Your task to perform on an android device: Clear the cart on newegg. Add usb-b to the cart on newegg, then select checkout. Image 0: 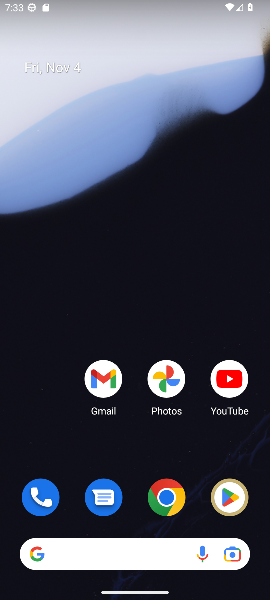
Step 0: click (169, 499)
Your task to perform on an android device: Clear the cart on newegg. Add usb-b to the cart on newegg, then select checkout. Image 1: 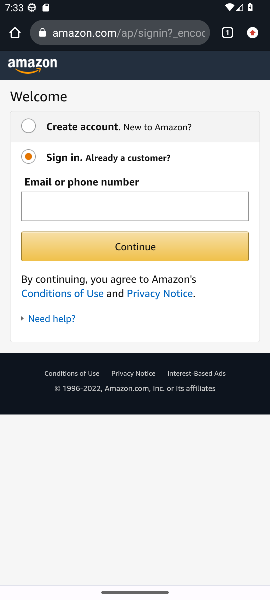
Step 1: click (129, 34)
Your task to perform on an android device: Clear the cart on newegg. Add usb-b to the cart on newegg, then select checkout. Image 2: 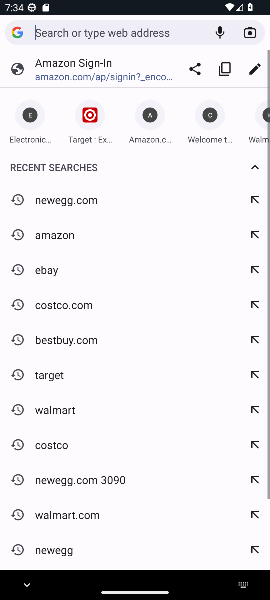
Step 2: click (84, 200)
Your task to perform on an android device: Clear the cart on newegg. Add usb-b to the cart on newegg, then select checkout. Image 3: 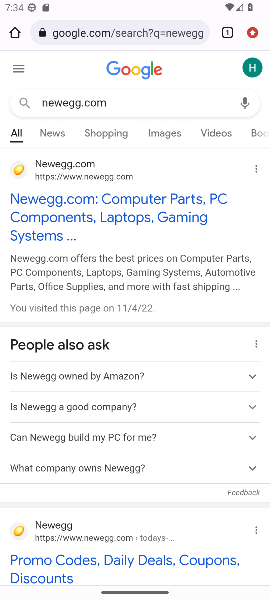
Step 3: click (55, 217)
Your task to perform on an android device: Clear the cart on newegg. Add usb-b to the cart on newegg, then select checkout. Image 4: 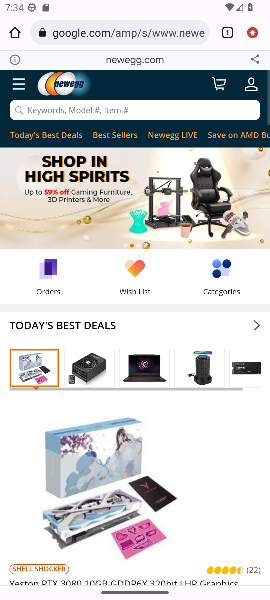
Step 4: click (220, 83)
Your task to perform on an android device: Clear the cart on newegg. Add usb-b to the cart on newegg, then select checkout. Image 5: 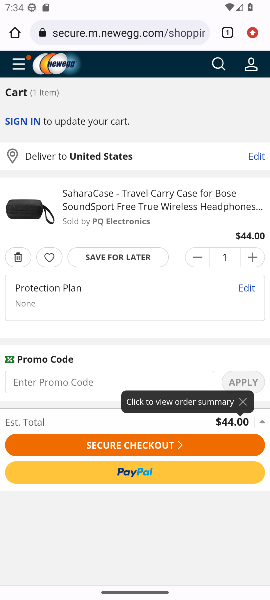
Step 5: click (13, 262)
Your task to perform on an android device: Clear the cart on newegg. Add usb-b to the cart on newegg, then select checkout. Image 6: 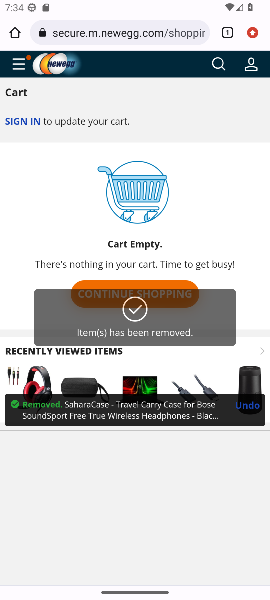
Step 6: click (129, 290)
Your task to perform on an android device: Clear the cart on newegg. Add usb-b to the cart on newegg, then select checkout. Image 7: 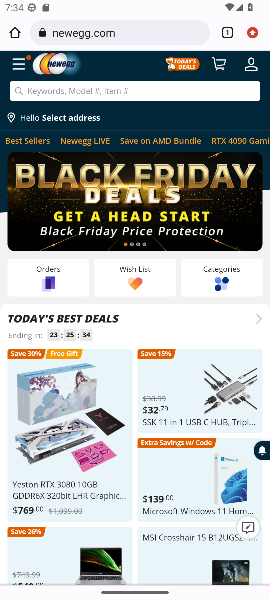
Step 7: click (144, 92)
Your task to perform on an android device: Clear the cart on newegg. Add usb-b to the cart on newegg, then select checkout. Image 8: 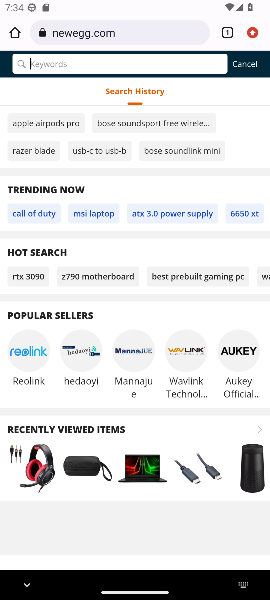
Step 8: type "usb-b "
Your task to perform on an android device: Clear the cart on newegg. Add usb-b to the cart on newegg, then select checkout. Image 9: 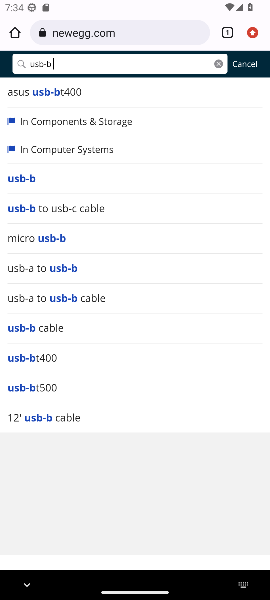
Step 9: click (27, 176)
Your task to perform on an android device: Clear the cart on newegg. Add usb-b to the cart on newegg, then select checkout. Image 10: 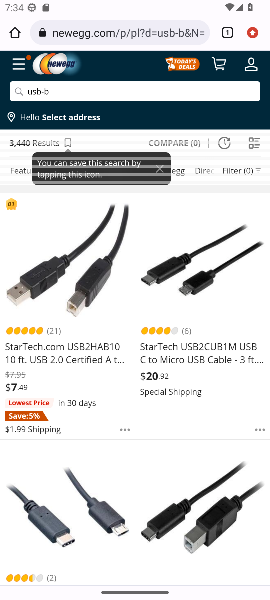
Step 10: click (75, 302)
Your task to perform on an android device: Clear the cart on newegg. Add usb-b to the cart on newegg, then select checkout. Image 11: 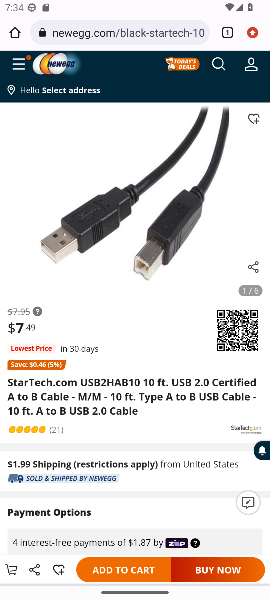
Step 11: click (114, 568)
Your task to perform on an android device: Clear the cart on newegg. Add usb-b to the cart on newegg, then select checkout. Image 12: 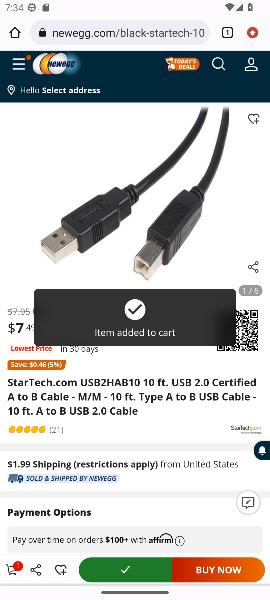
Step 12: click (13, 568)
Your task to perform on an android device: Clear the cart on newegg. Add usb-b to the cart on newegg, then select checkout. Image 13: 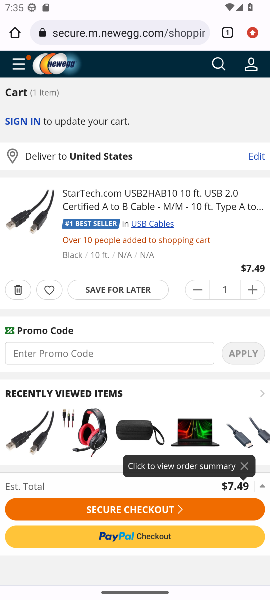
Step 13: click (135, 510)
Your task to perform on an android device: Clear the cart on newegg. Add usb-b to the cart on newegg, then select checkout. Image 14: 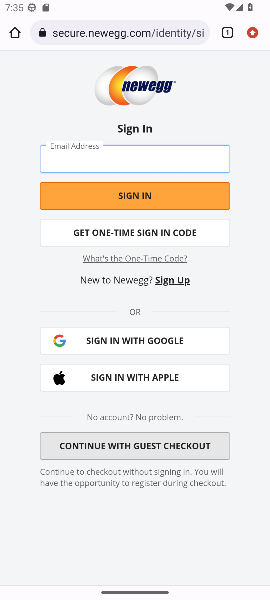
Step 14: task complete